Your task to perform on an android device: What's the news in French Guiana? Image 0: 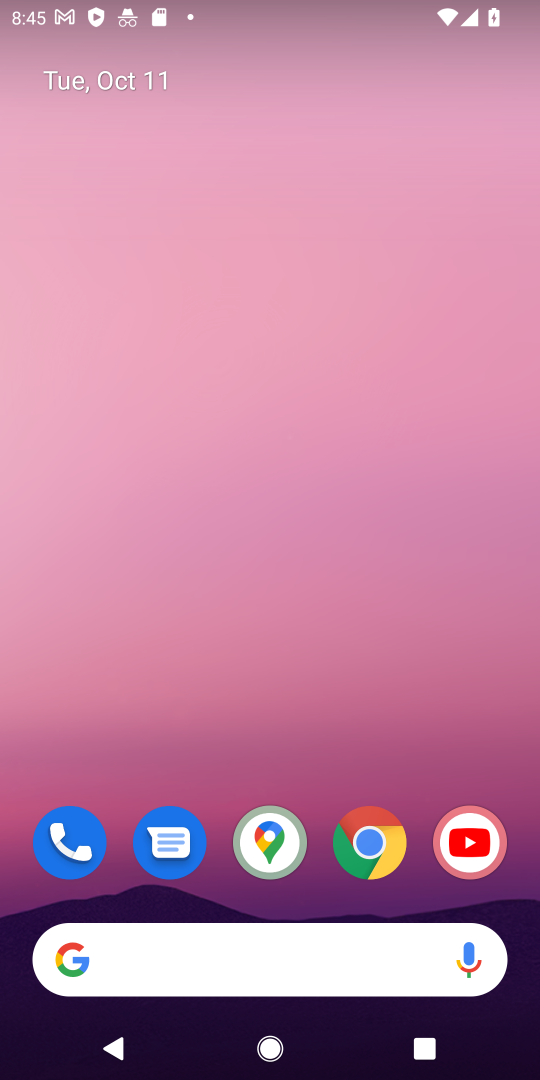
Step 0: click (315, 934)
Your task to perform on an android device: What's the news in French Guiana? Image 1: 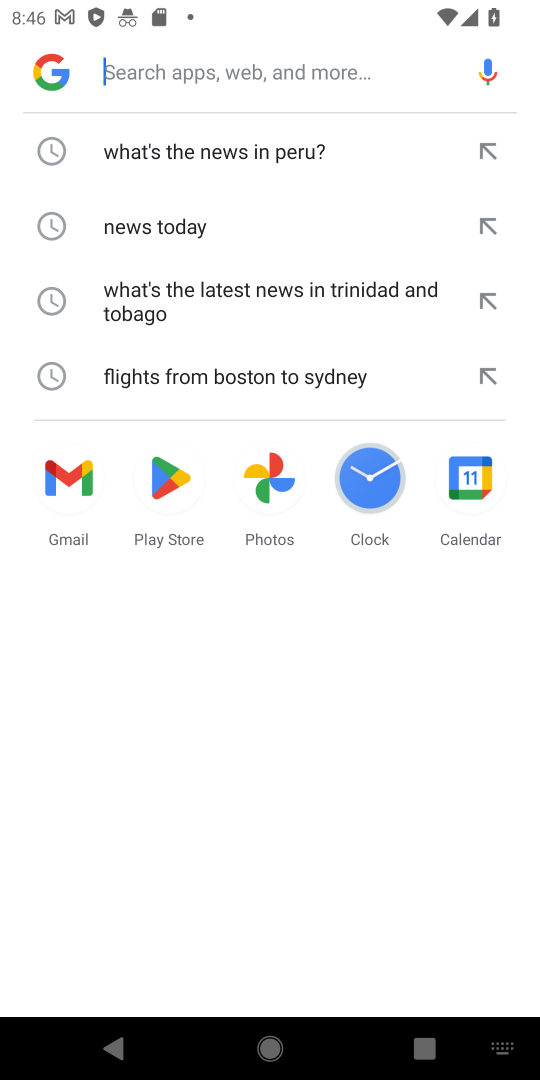
Step 1: type "What's the news in French Guiana?"
Your task to perform on an android device: What's the news in French Guiana? Image 2: 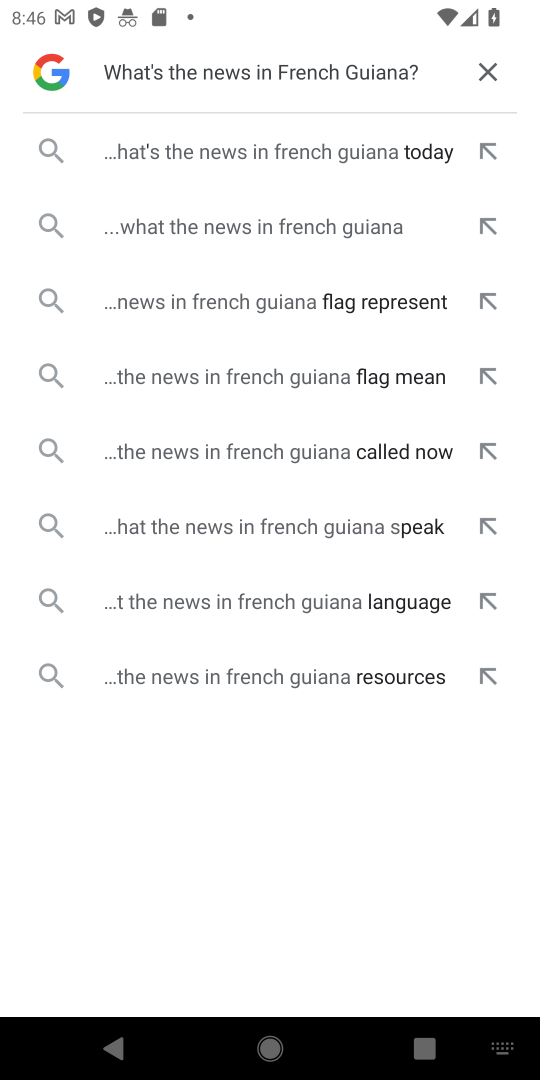
Step 2: click (317, 230)
Your task to perform on an android device: What's the news in French Guiana? Image 3: 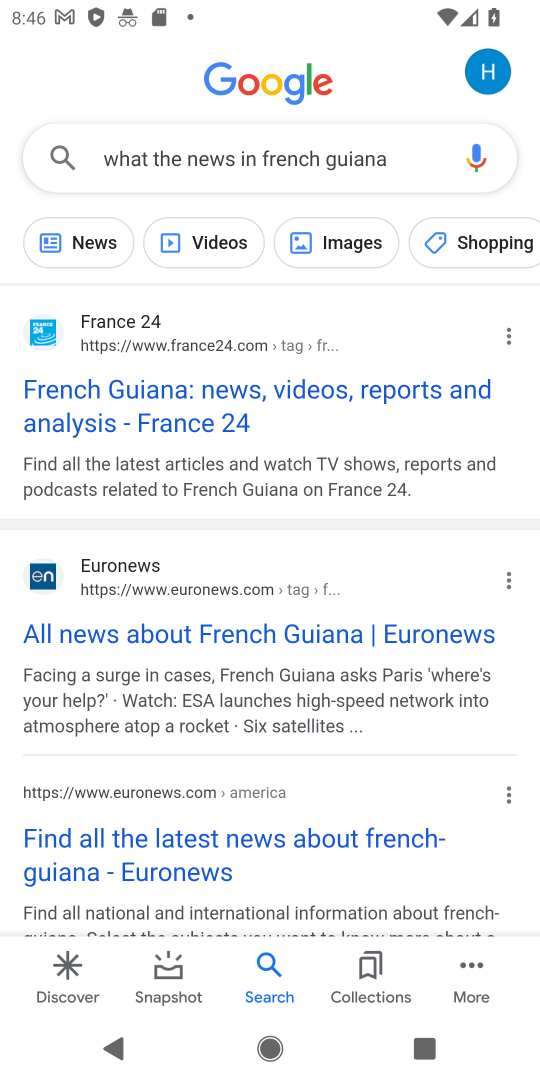
Step 3: click (93, 234)
Your task to perform on an android device: What's the news in French Guiana? Image 4: 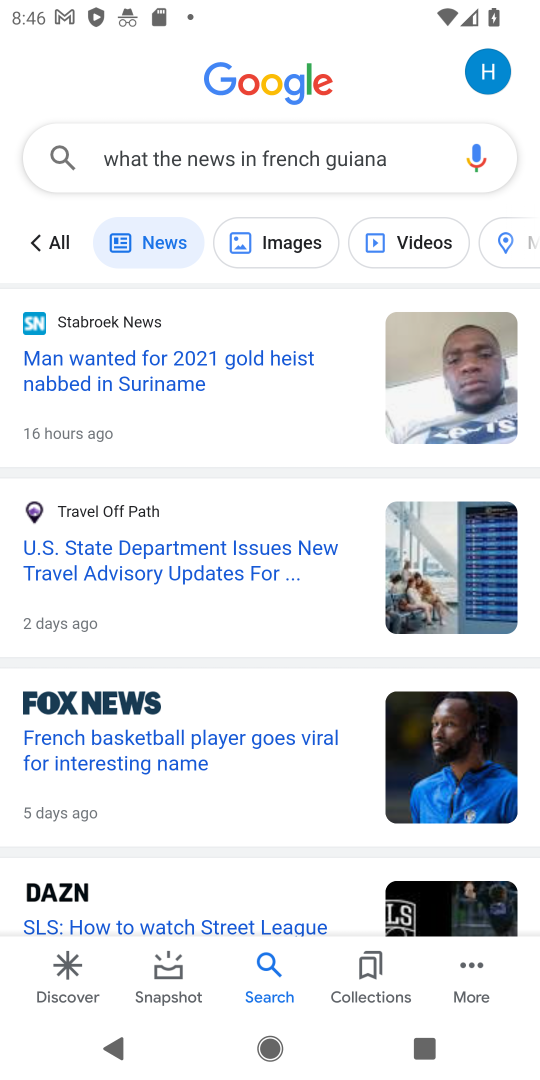
Step 4: drag from (381, 580) to (402, 362)
Your task to perform on an android device: What's the news in French Guiana? Image 5: 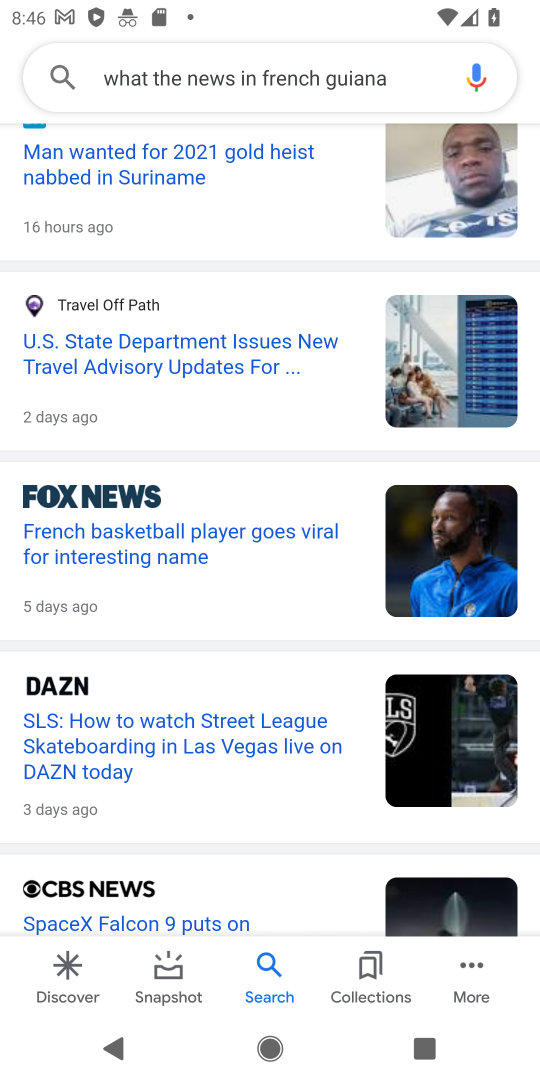
Step 5: click (254, 803)
Your task to perform on an android device: What's the news in French Guiana? Image 6: 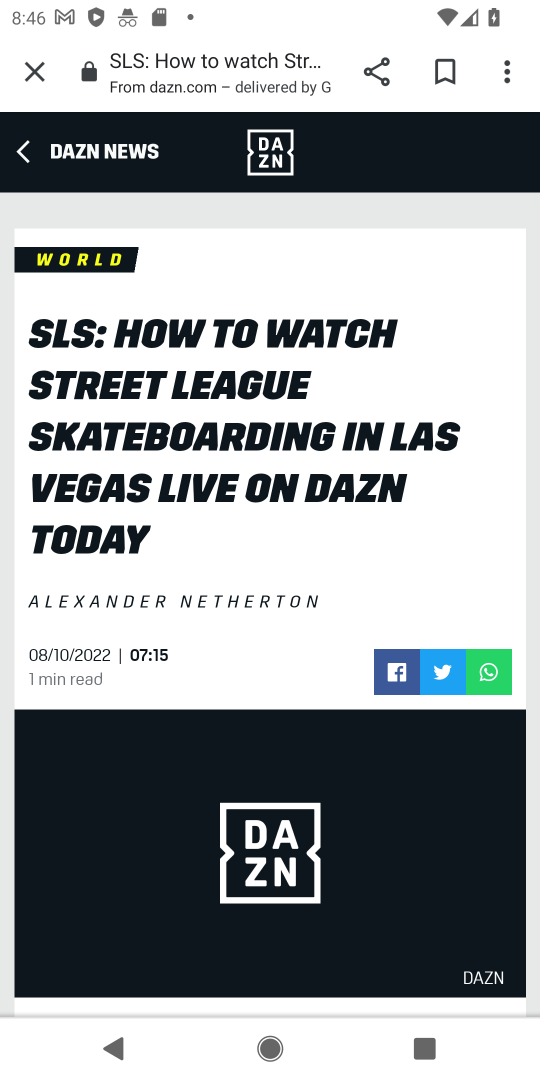
Step 6: task complete